Your task to perform on an android device: Open eBay Image 0: 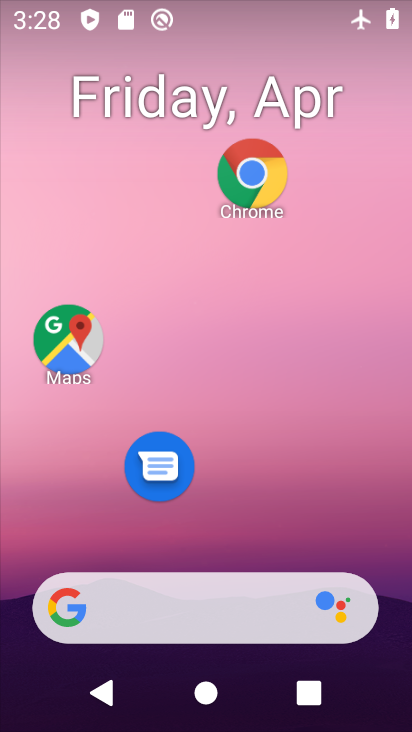
Step 0: click (250, 186)
Your task to perform on an android device: Open eBay Image 1: 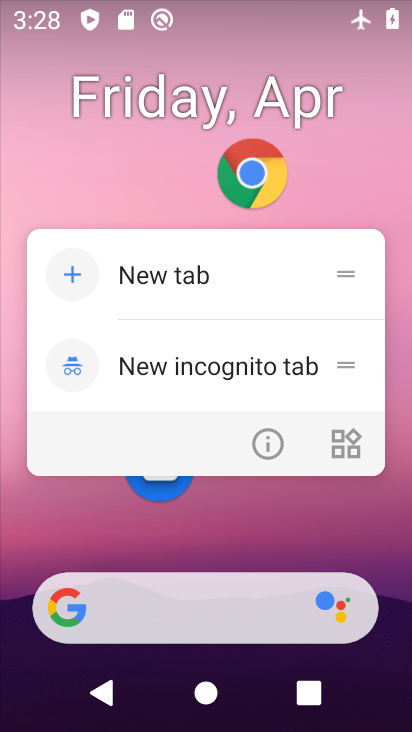
Step 1: click (269, 451)
Your task to perform on an android device: Open eBay Image 2: 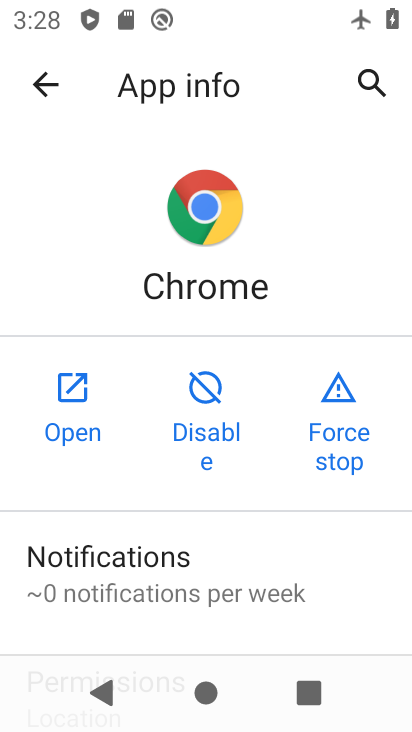
Step 2: click (75, 434)
Your task to perform on an android device: Open eBay Image 3: 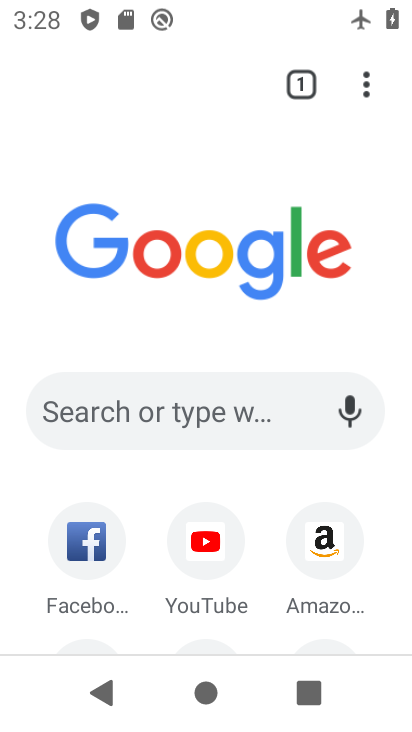
Step 3: click (204, 434)
Your task to perform on an android device: Open eBay Image 4: 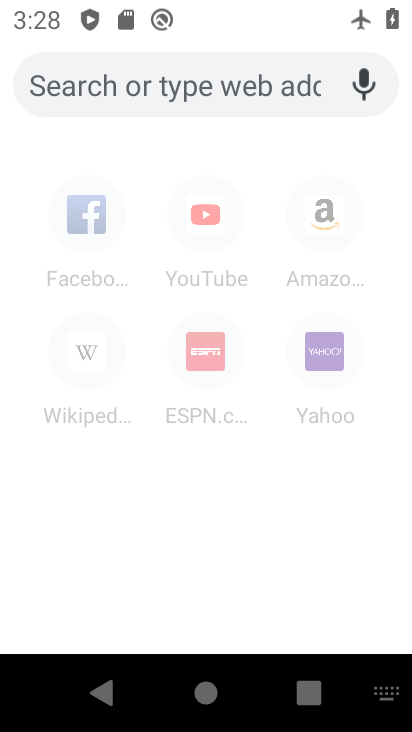
Step 4: type "eBay"
Your task to perform on an android device: Open eBay Image 5: 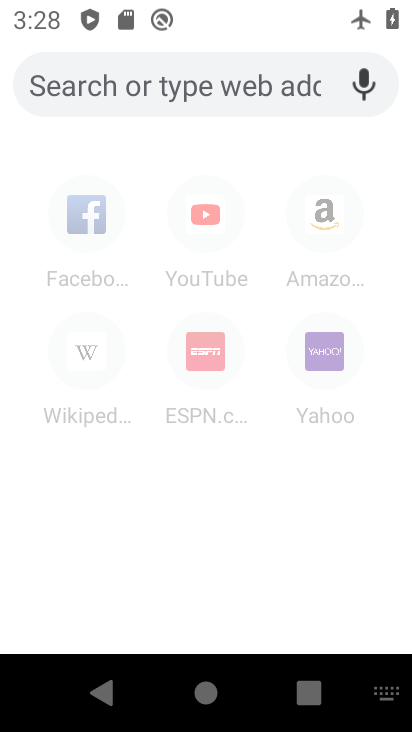
Step 5: click (144, 80)
Your task to perform on an android device: Open eBay Image 6: 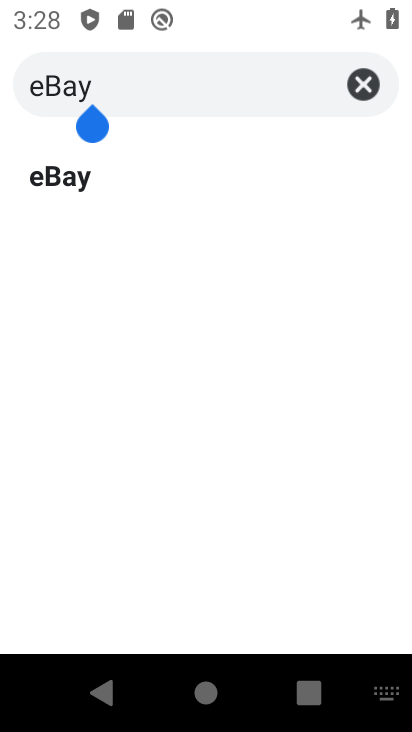
Step 6: click (107, 189)
Your task to perform on an android device: Open eBay Image 7: 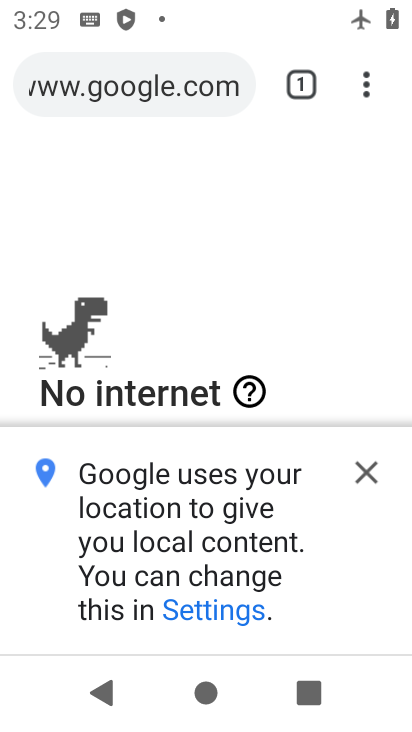
Step 7: task complete